Your task to perform on an android device: Open wifi settings Image 0: 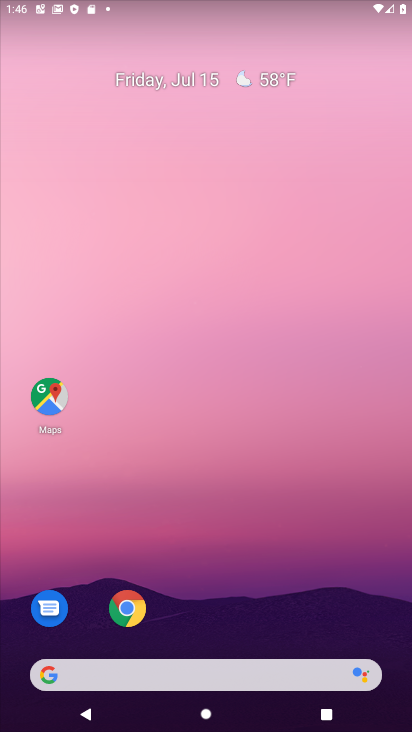
Step 0: drag from (286, 623) to (215, 36)
Your task to perform on an android device: Open wifi settings Image 1: 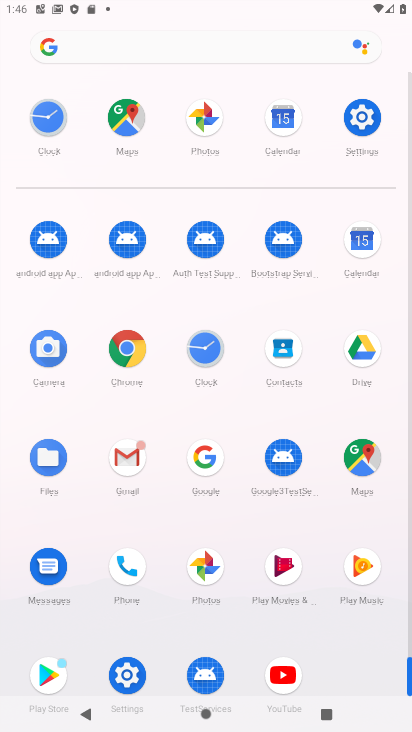
Step 1: drag from (102, 5) to (176, 424)
Your task to perform on an android device: Open wifi settings Image 2: 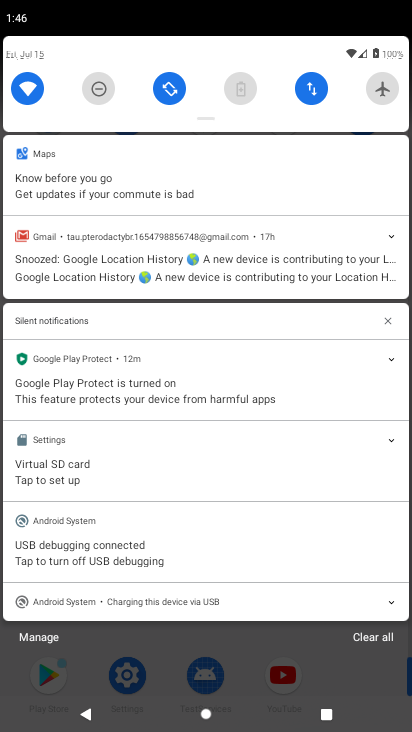
Step 2: click (27, 82)
Your task to perform on an android device: Open wifi settings Image 3: 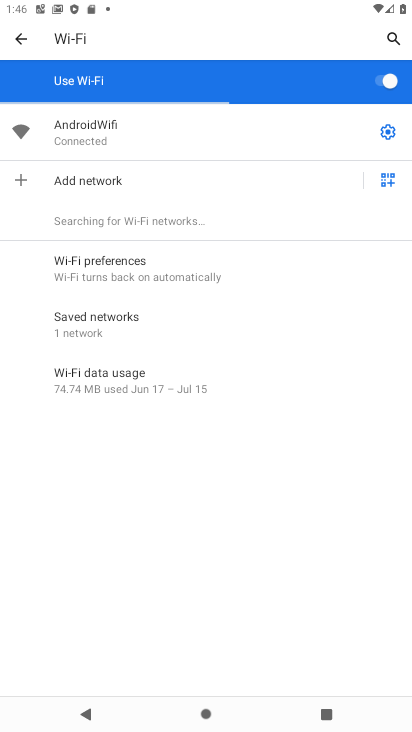
Step 3: task complete